Your task to perform on an android device: choose inbox layout in the gmail app Image 0: 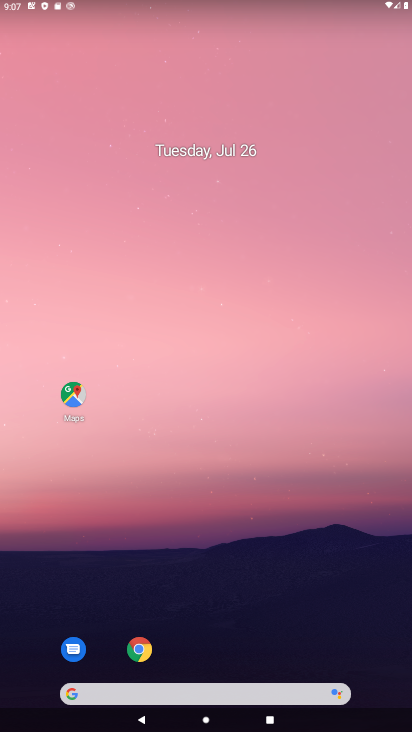
Step 0: drag from (191, 619) to (292, 163)
Your task to perform on an android device: choose inbox layout in the gmail app Image 1: 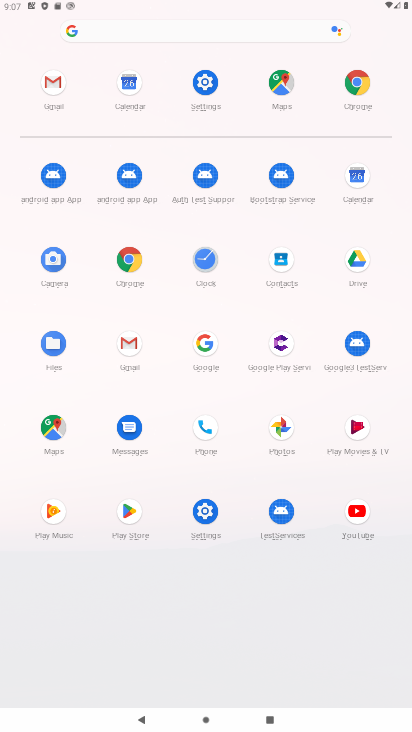
Step 1: click (131, 337)
Your task to perform on an android device: choose inbox layout in the gmail app Image 2: 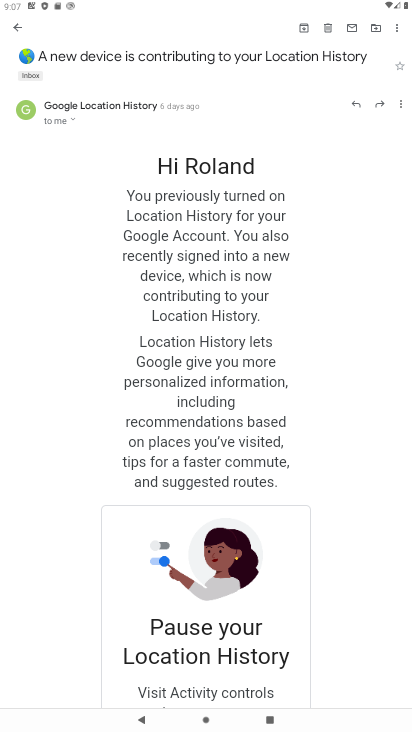
Step 2: click (13, 34)
Your task to perform on an android device: choose inbox layout in the gmail app Image 3: 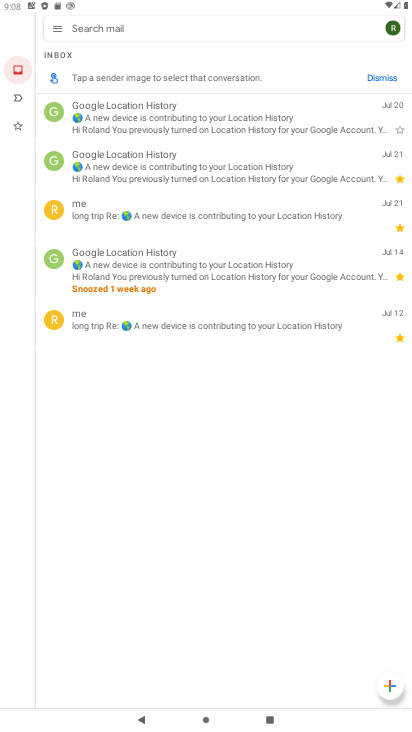
Step 3: drag from (174, 619) to (161, 361)
Your task to perform on an android device: choose inbox layout in the gmail app Image 4: 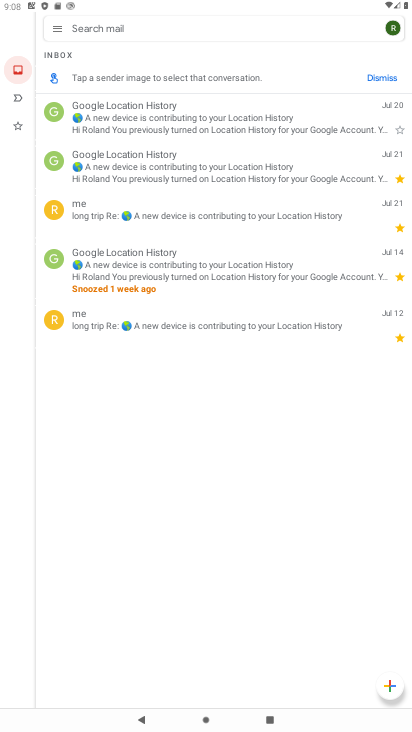
Step 4: click (55, 34)
Your task to perform on an android device: choose inbox layout in the gmail app Image 5: 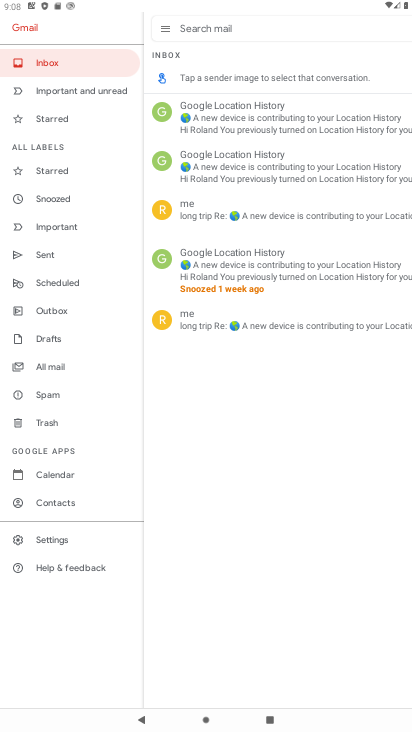
Step 5: click (63, 62)
Your task to perform on an android device: choose inbox layout in the gmail app Image 6: 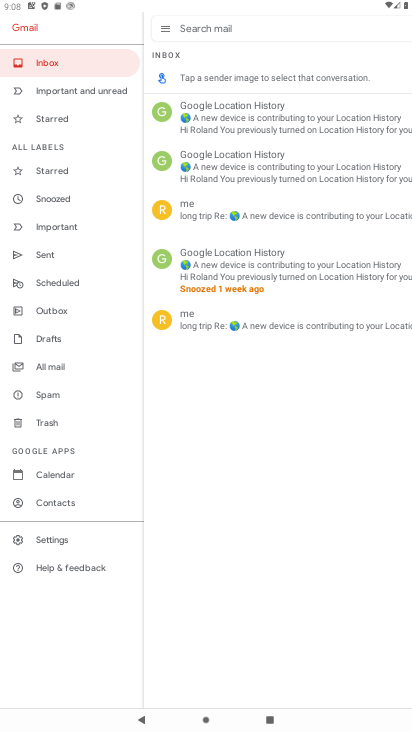
Step 6: drag from (268, 553) to (361, 362)
Your task to perform on an android device: choose inbox layout in the gmail app Image 7: 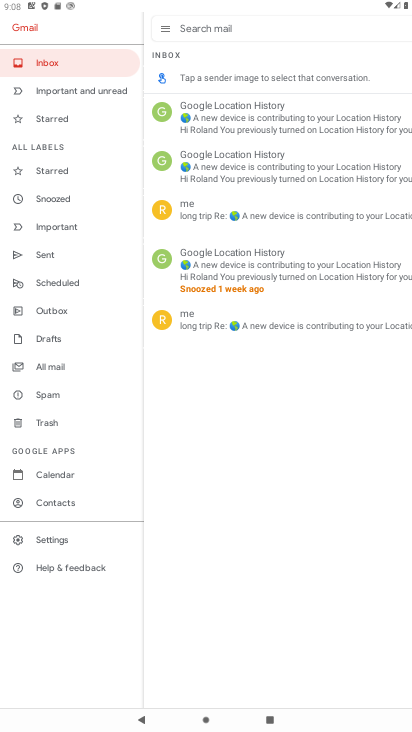
Step 7: click (246, 118)
Your task to perform on an android device: choose inbox layout in the gmail app Image 8: 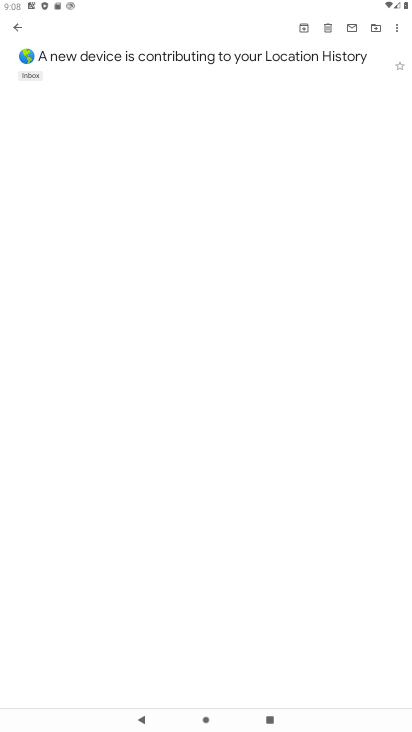
Step 8: drag from (230, 591) to (199, 195)
Your task to perform on an android device: choose inbox layout in the gmail app Image 9: 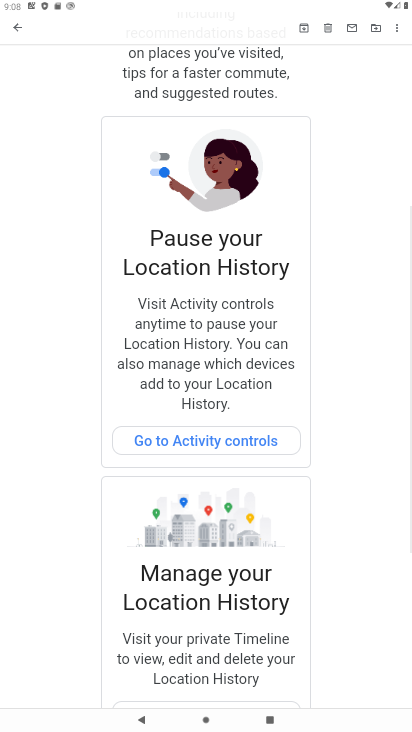
Step 9: drag from (233, 243) to (236, 675)
Your task to perform on an android device: choose inbox layout in the gmail app Image 10: 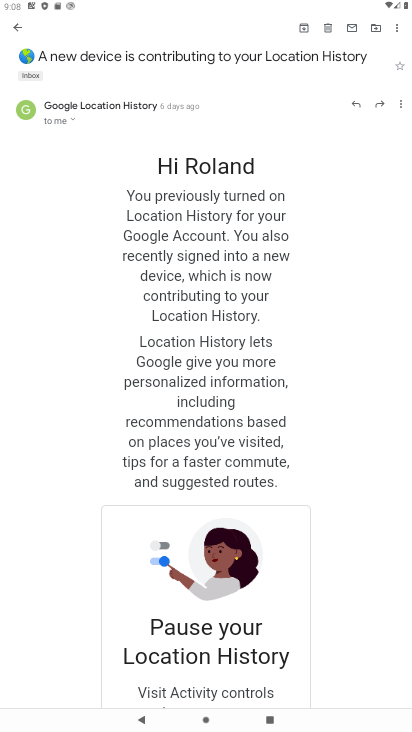
Step 10: drag from (188, 193) to (311, 569)
Your task to perform on an android device: choose inbox layout in the gmail app Image 11: 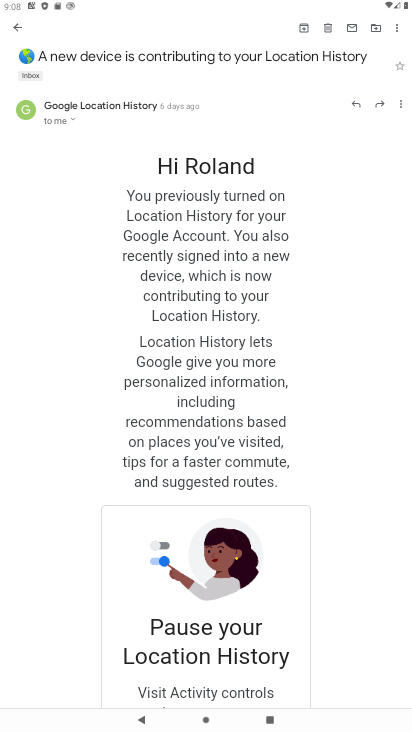
Step 11: drag from (249, 253) to (271, 567)
Your task to perform on an android device: choose inbox layout in the gmail app Image 12: 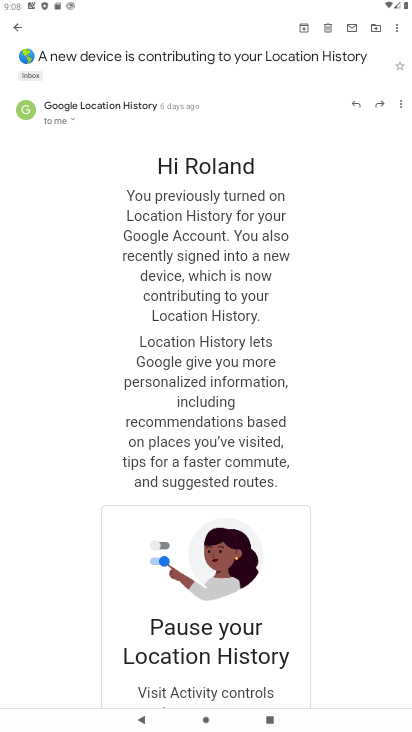
Step 12: click (11, 26)
Your task to perform on an android device: choose inbox layout in the gmail app Image 13: 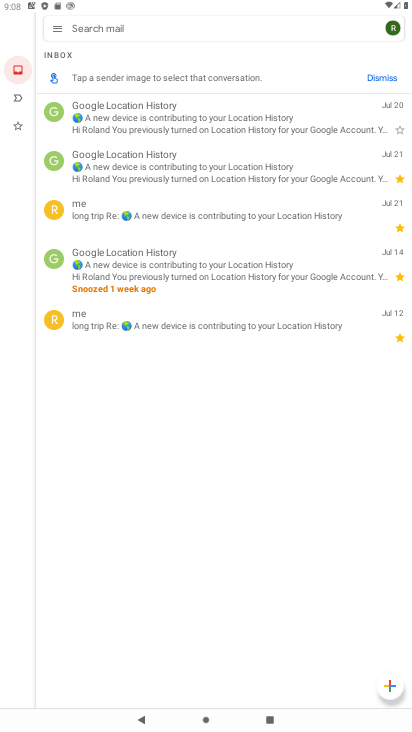
Step 13: task complete